Your task to perform on an android device: change the upload size in google photos Image 0: 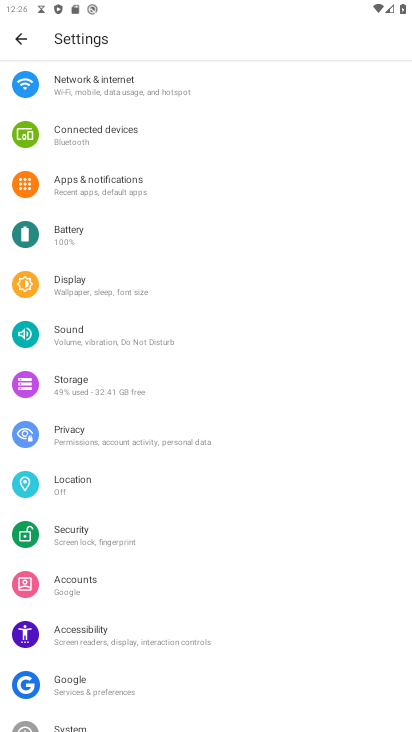
Step 0: press home button
Your task to perform on an android device: change the upload size in google photos Image 1: 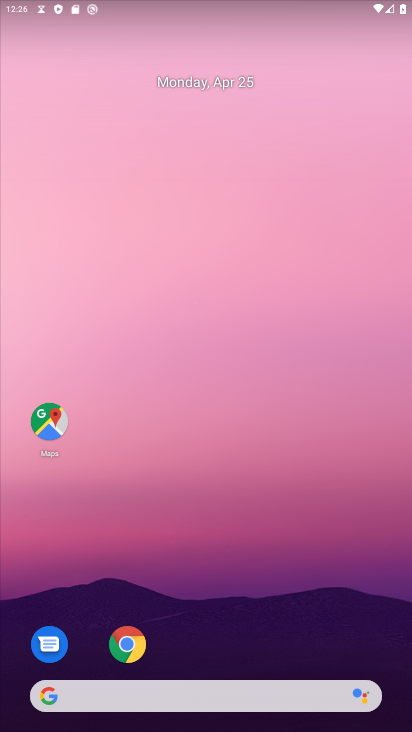
Step 1: drag from (377, 651) to (400, 0)
Your task to perform on an android device: change the upload size in google photos Image 2: 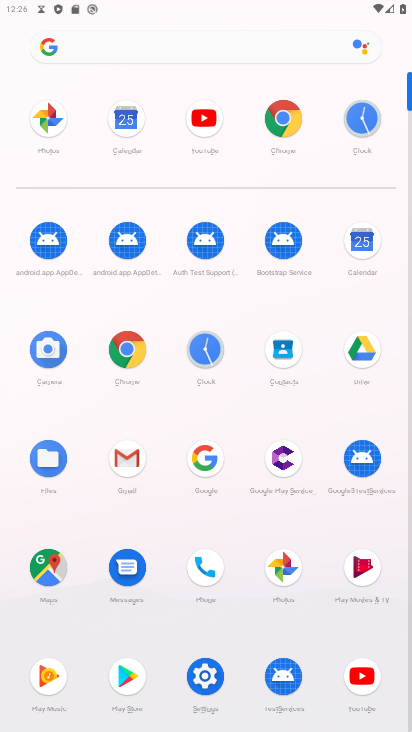
Step 2: click (283, 569)
Your task to perform on an android device: change the upload size in google photos Image 3: 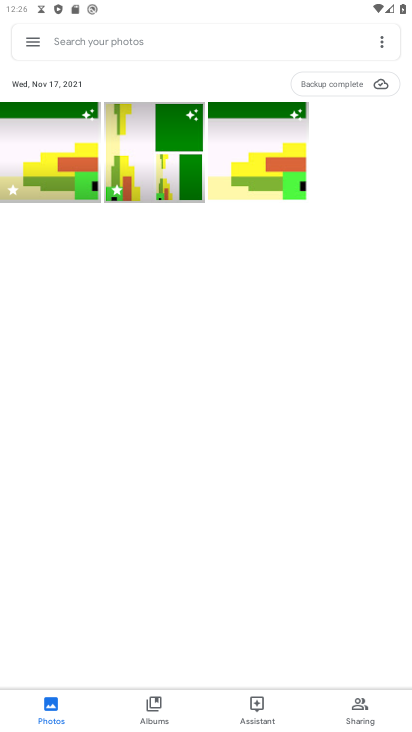
Step 3: click (33, 45)
Your task to perform on an android device: change the upload size in google photos Image 4: 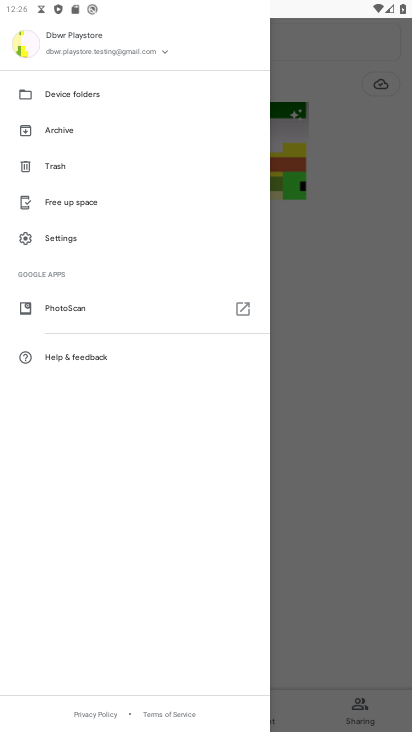
Step 4: click (65, 242)
Your task to perform on an android device: change the upload size in google photos Image 5: 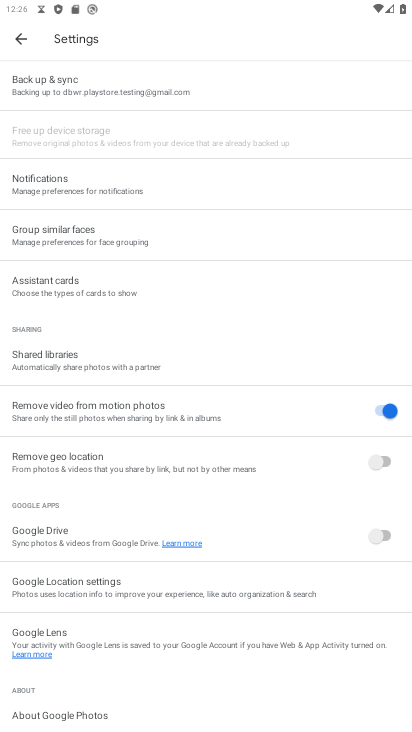
Step 5: click (64, 90)
Your task to perform on an android device: change the upload size in google photos Image 6: 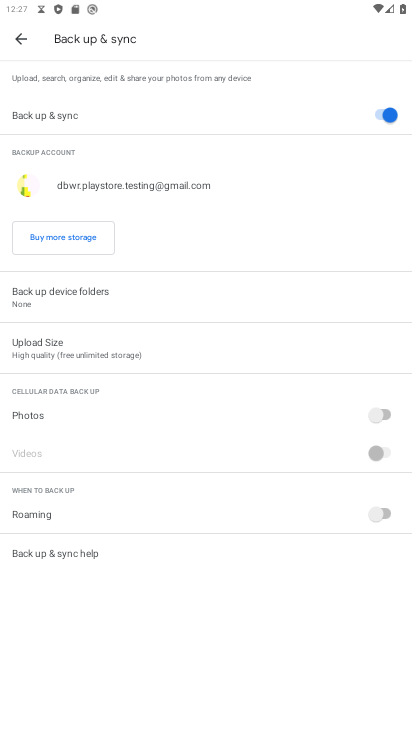
Step 6: click (58, 356)
Your task to perform on an android device: change the upload size in google photos Image 7: 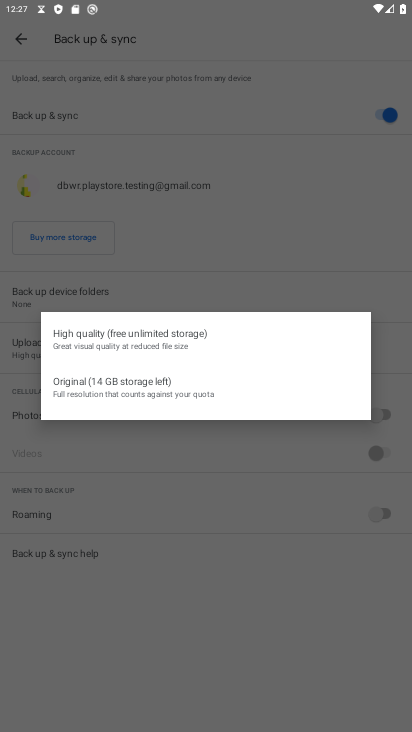
Step 7: click (89, 397)
Your task to perform on an android device: change the upload size in google photos Image 8: 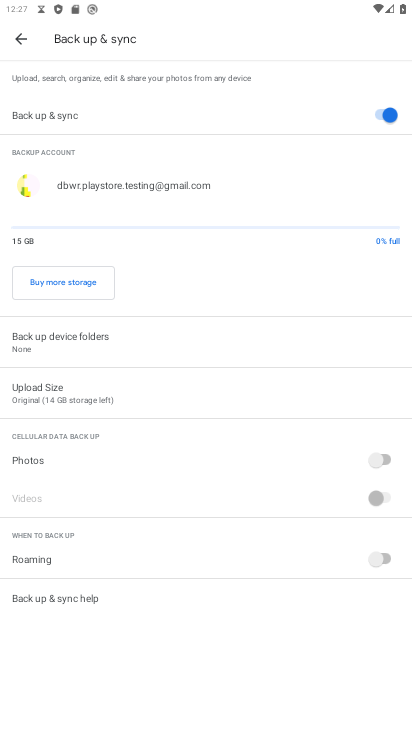
Step 8: task complete